Your task to perform on an android device: change the upload size in google photos Image 0: 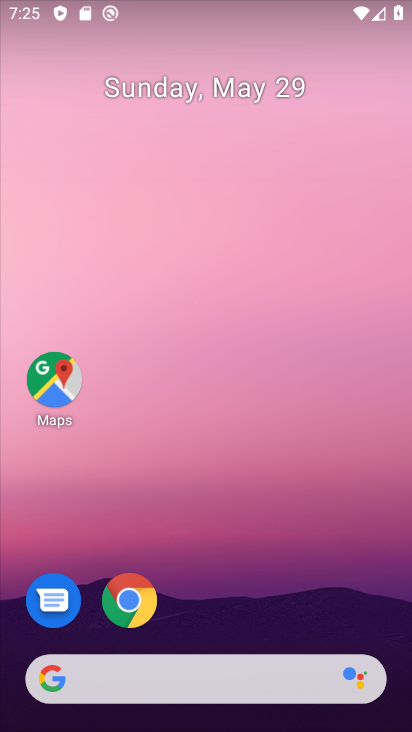
Step 0: drag from (245, 633) to (286, 163)
Your task to perform on an android device: change the upload size in google photos Image 1: 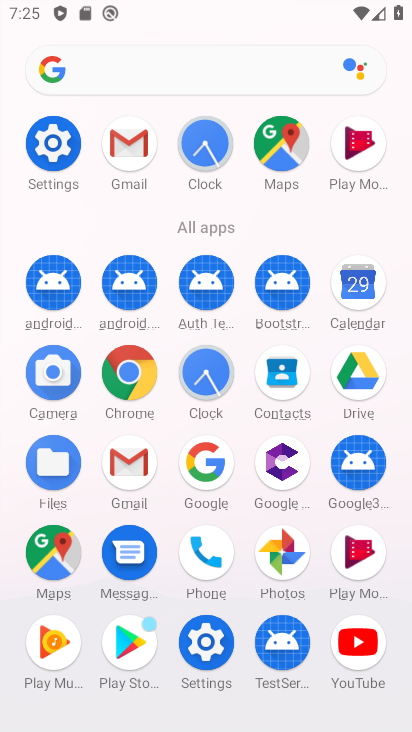
Step 1: click (299, 547)
Your task to perform on an android device: change the upload size in google photos Image 2: 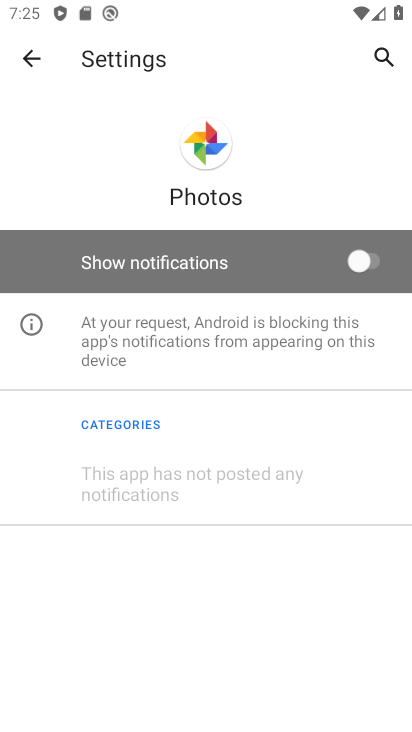
Step 2: click (41, 56)
Your task to perform on an android device: change the upload size in google photos Image 3: 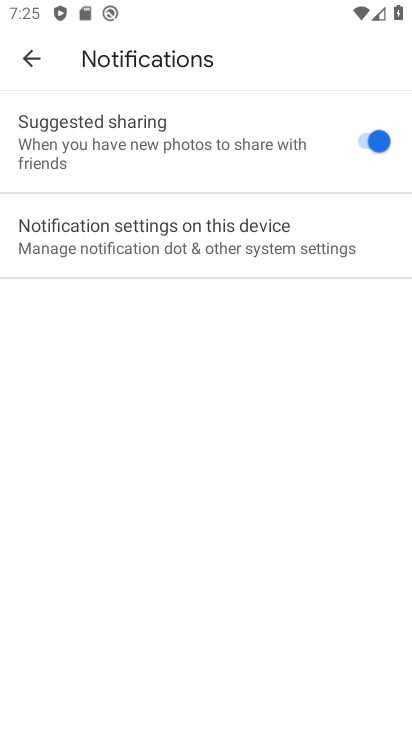
Step 3: click (39, 69)
Your task to perform on an android device: change the upload size in google photos Image 4: 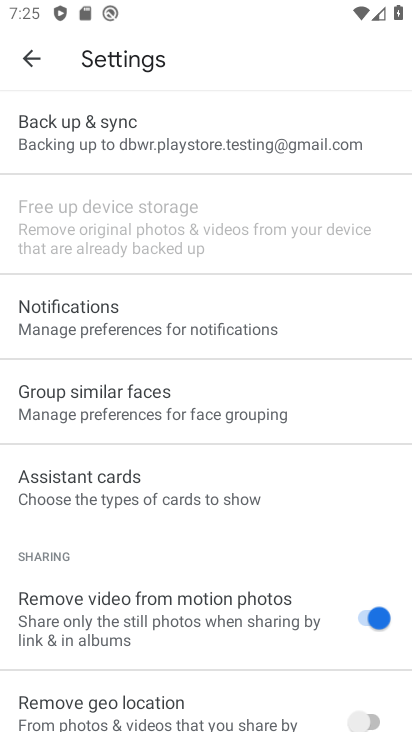
Step 4: click (129, 136)
Your task to perform on an android device: change the upload size in google photos Image 5: 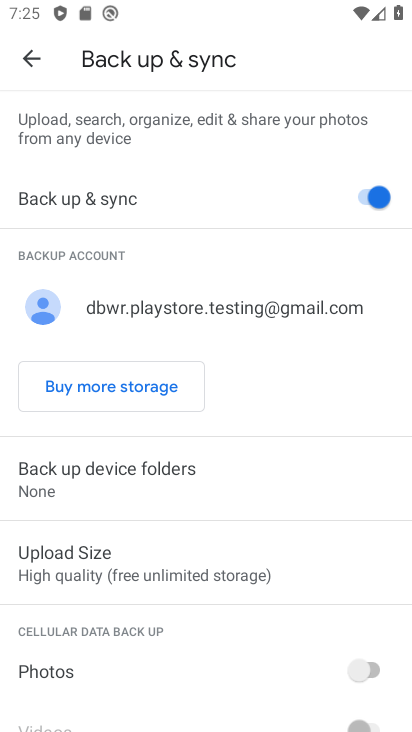
Step 5: click (197, 573)
Your task to perform on an android device: change the upload size in google photos Image 6: 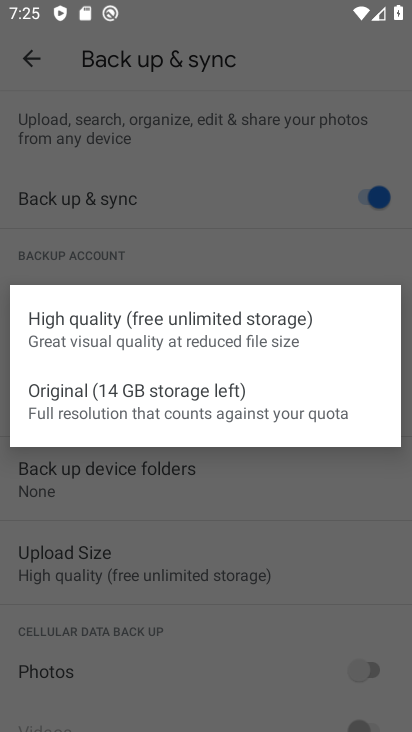
Step 6: click (143, 402)
Your task to perform on an android device: change the upload size in google photos Image 7: 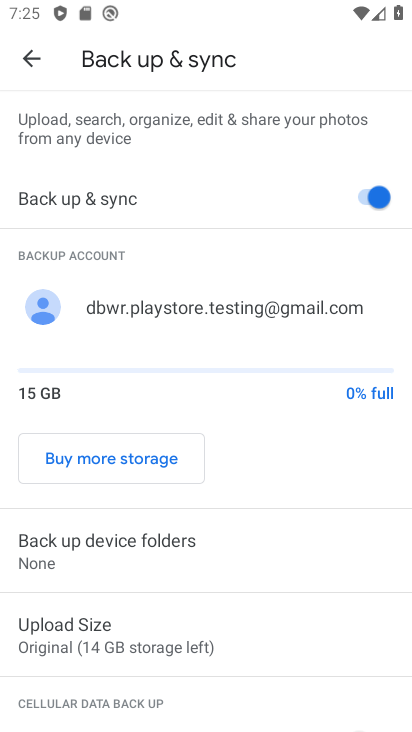
Step 7: task complete